Your task to perform on an android device: Open Google Maps Image 0: 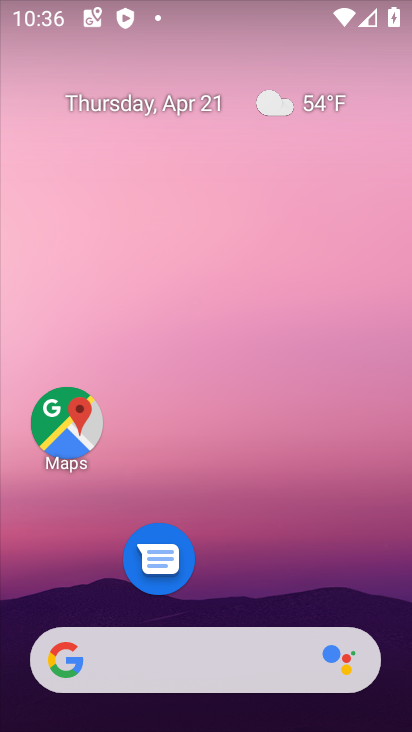
Step 0: click (65, 420)
Your task to perform on an android device: Open Google Maps Image 1: 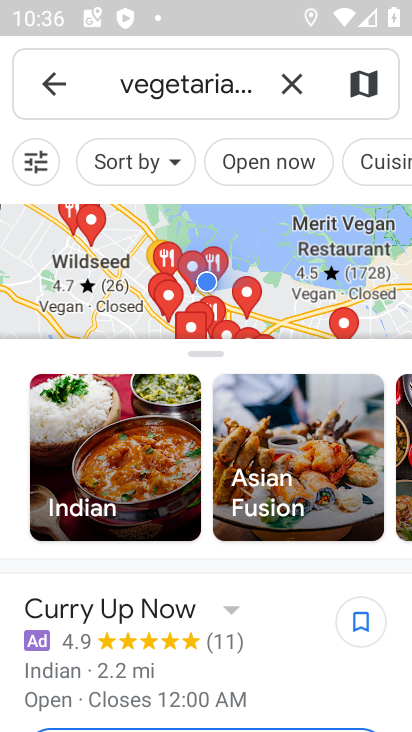
Step 1: task complete